Your task to perform on an android device: Open internet settings Image 0: 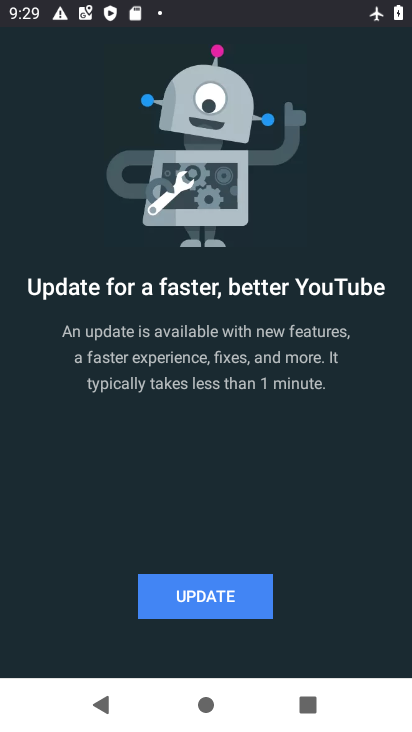
Step 0: press home button
Your task to perform on an android device: Open internet settings Image 1: 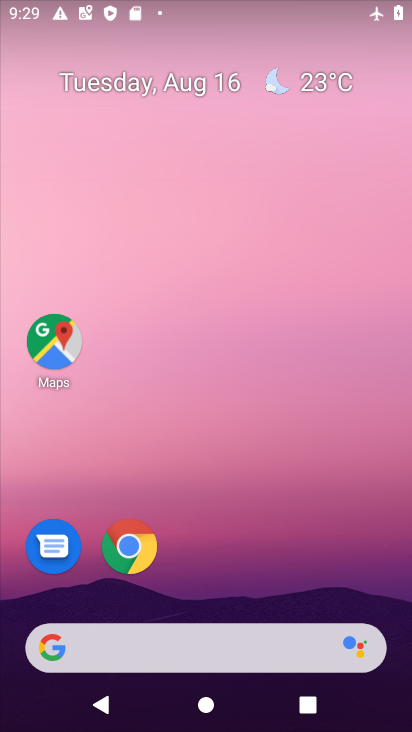
Step 1: drag from (243, 554) to (267, 0)
Your task to perform on an android device: Open internet settings Image 2: 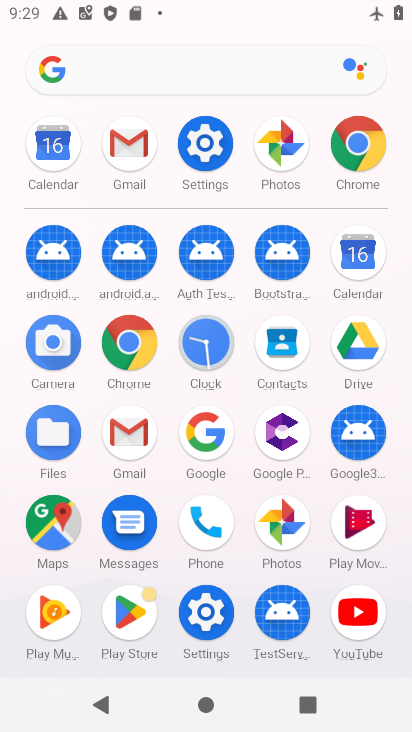
Step 2: click (206, 139)
Your task to perform on an android device: Open internet settings Image 3: 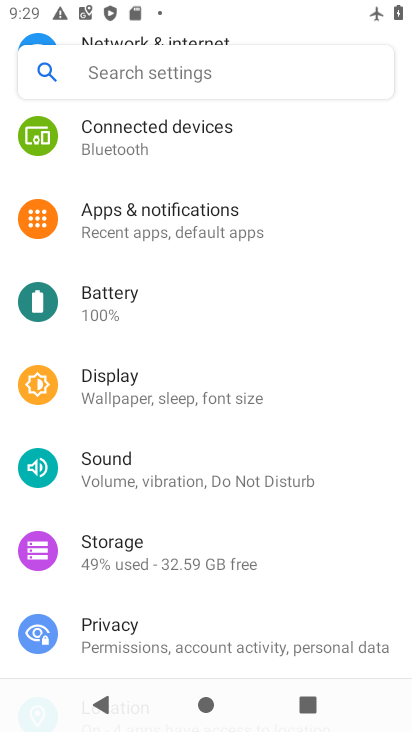
Step 3: drag from (204, 298) to (206, 569)
Your task to perform on an android device: Open internet settings Image 4: 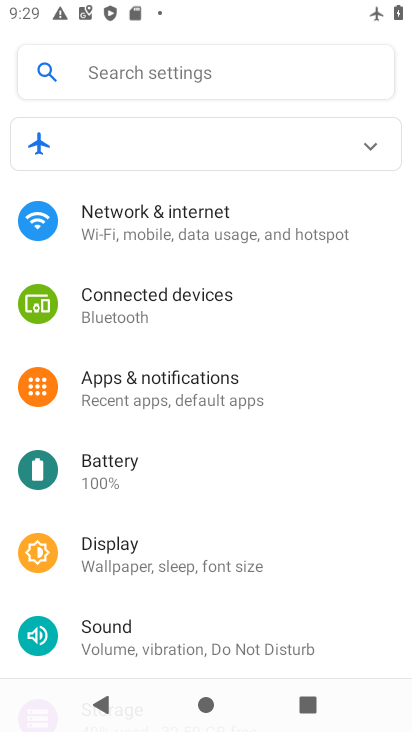
Step 4: click (238, 228)
Your task to perform on an android device: Open internet settings Image 5: 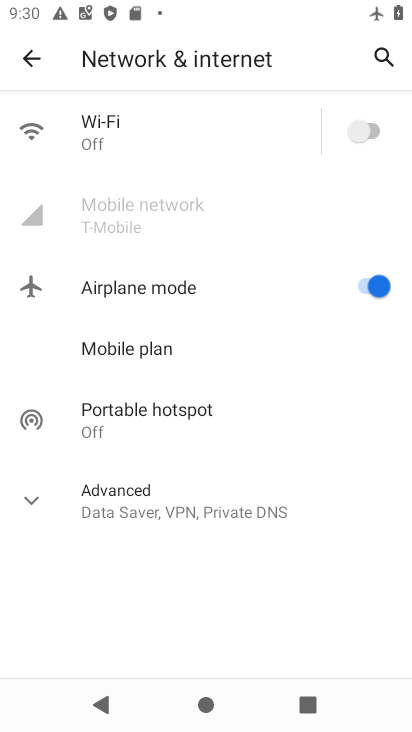
Step 5: task complete